Your task to perform on an android device: Add usb-c to the cart on ebay, then select checkout. Image 0: 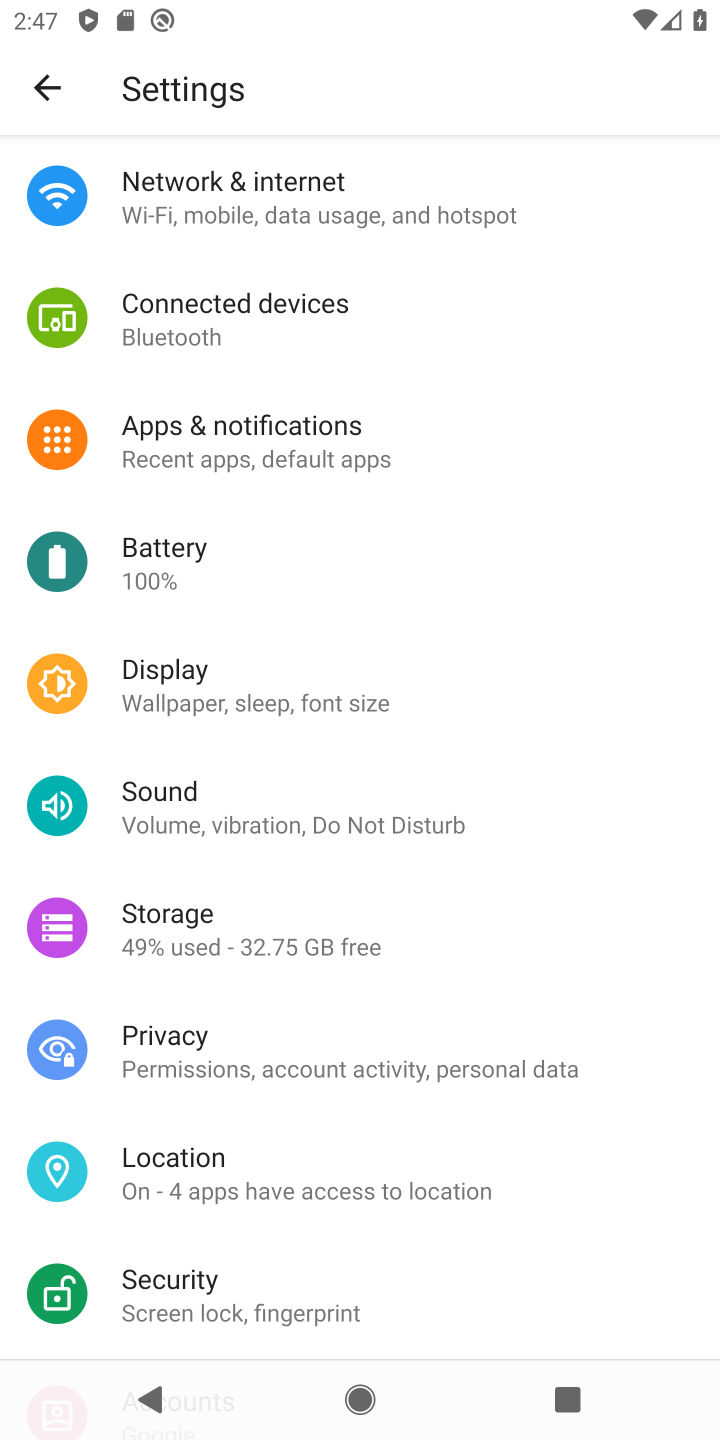
Step 0: press home button
Your task to perform on an android device: Add usb-c to the cart on ebay, then select checkout. Image 1: 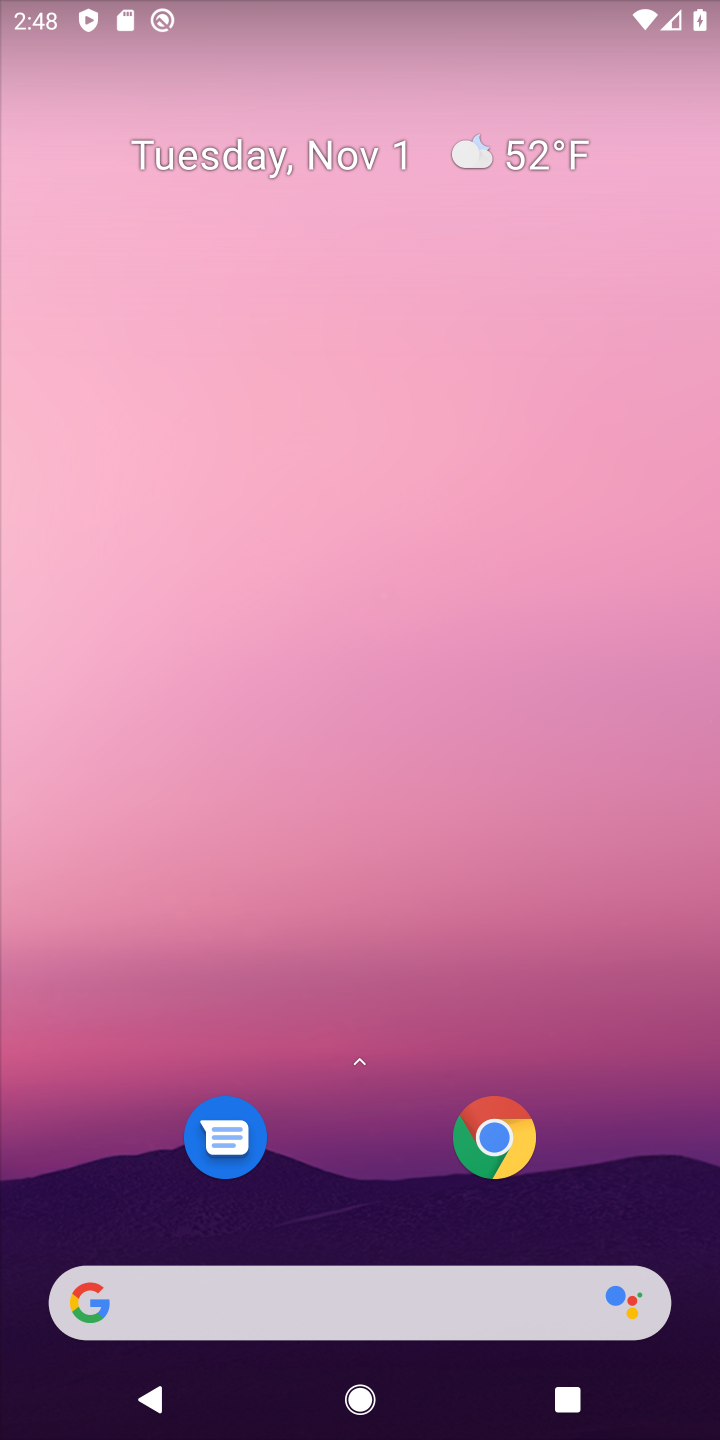
Step 1: click (448, 1340)
Your task to perform on an android device: Add usb-c to the cart on ebay, then select checkout. Image 2: 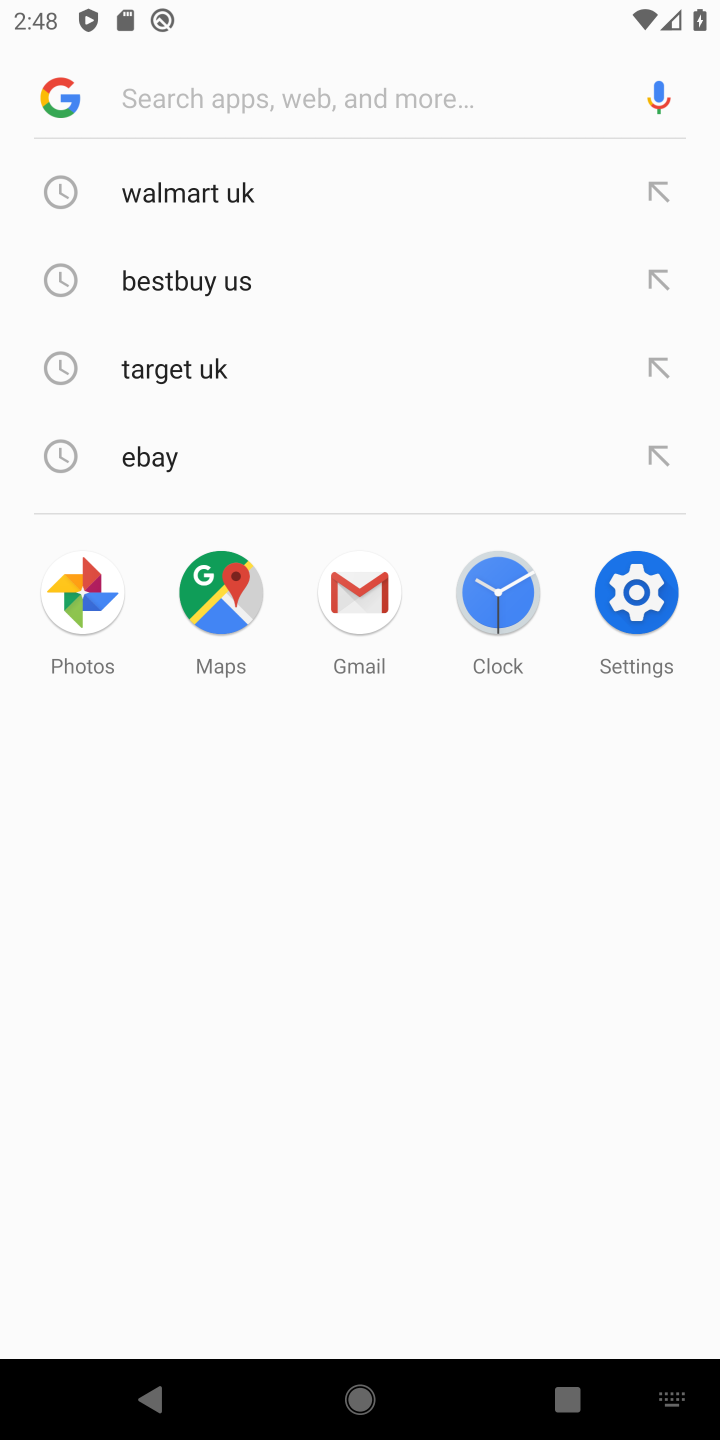
Step 2: click (249, 437)
Your task to perform on an android device: Add usb-c to the cart on ebay, then select checkout. Image 3: 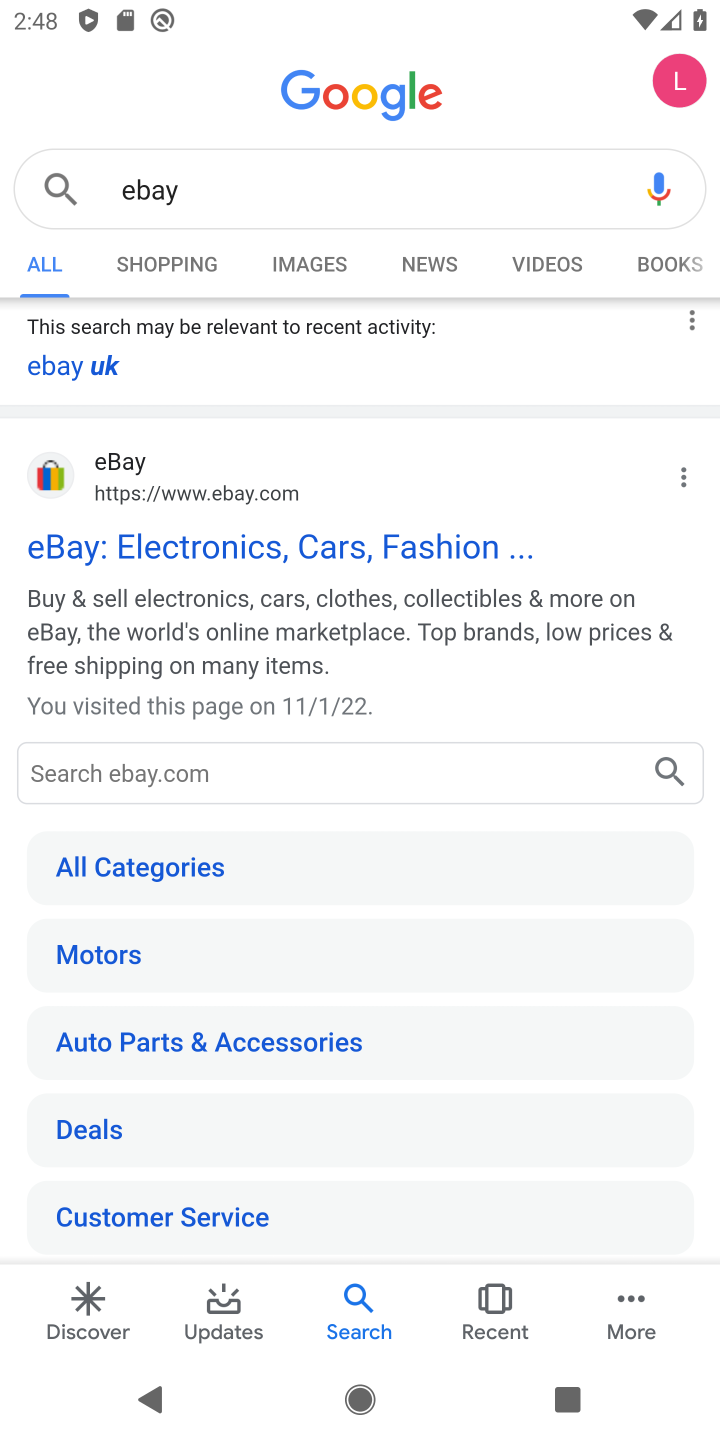
Step 3: click (375, 570)
Your task to perform on an android device: Add usb-c to the cart on ebay, then select checkout. Image 4: 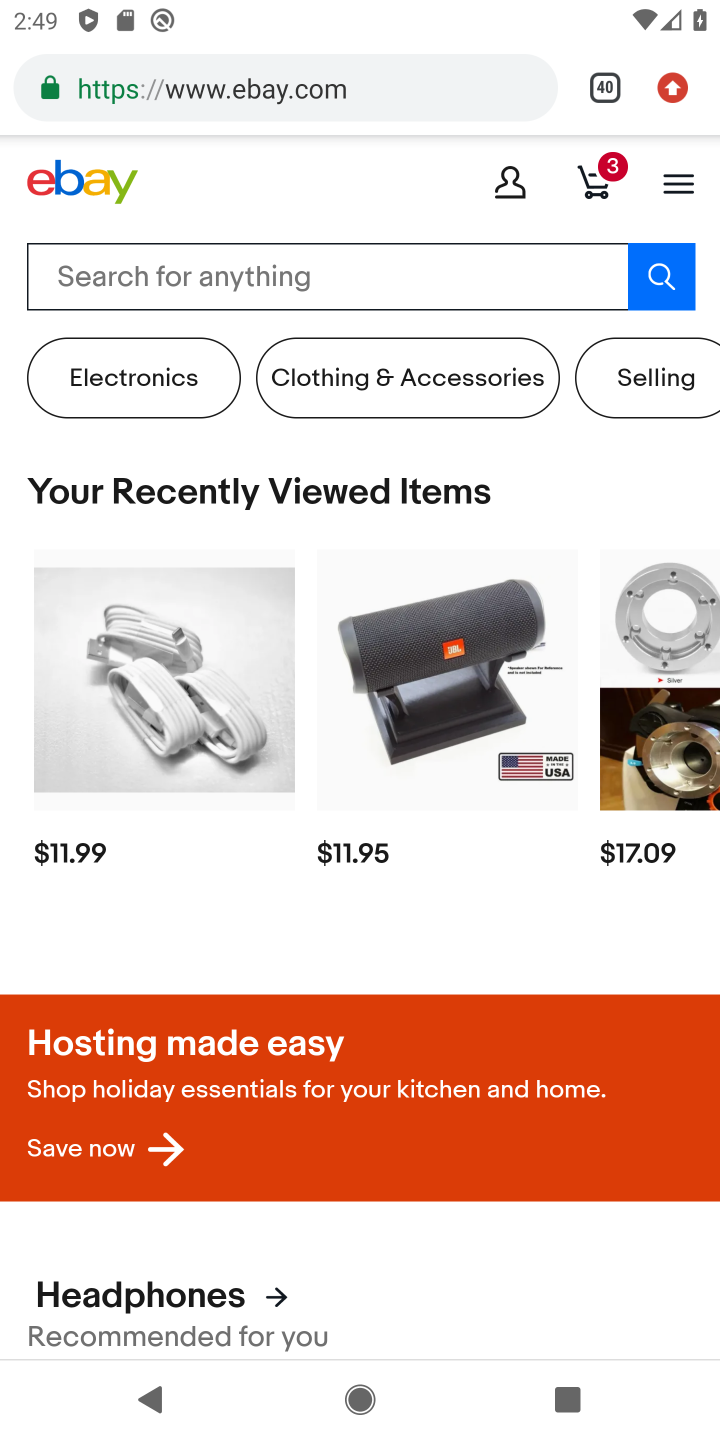
Step 4: drag from (330, 936) to (244, 395)
Your task to perform on an android device: Add usb-c to the cart on ebay, then select checkout. Image 5: 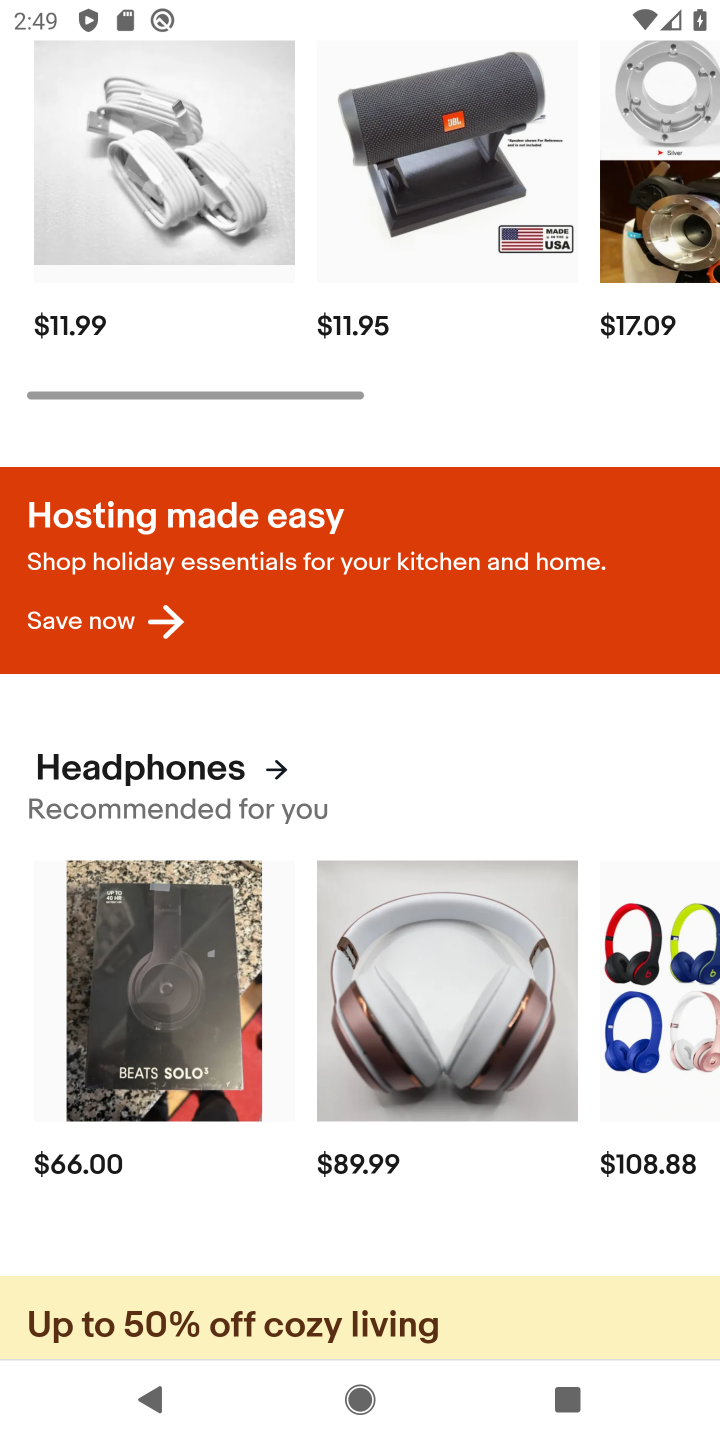
Step 5: drag from (279, 1228) to (140, 521)
Your task to perform on an android device: Add usb-c to the cart on ebay, then select checkout. Image 6: 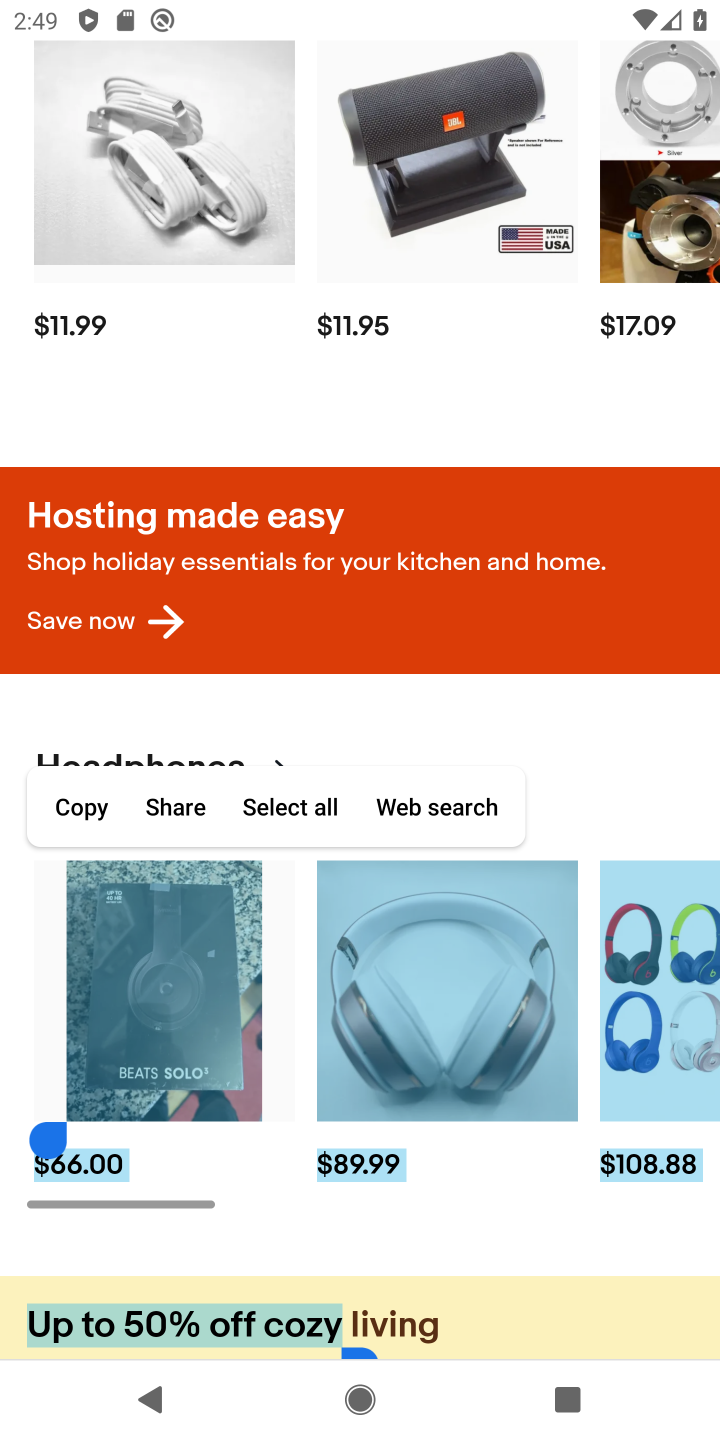
Step 6: click (310, 1210)
Your task to perform on an android device: Add usb-c to the cart on ebay, then select checkout. Image 7: 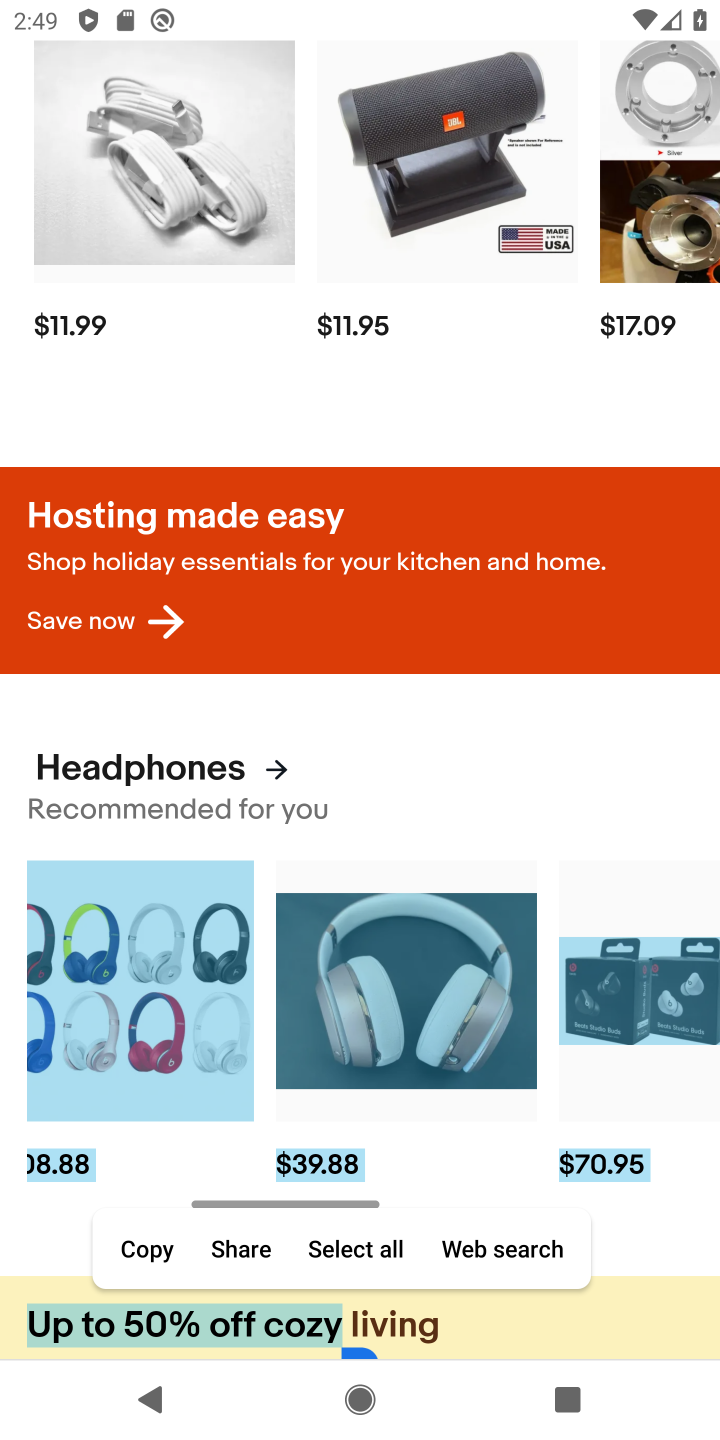
Step 7: click (180, 259)
Your task to perform on an android device: Add usb-c to the cart on ebay, then select checkout. Image 8: 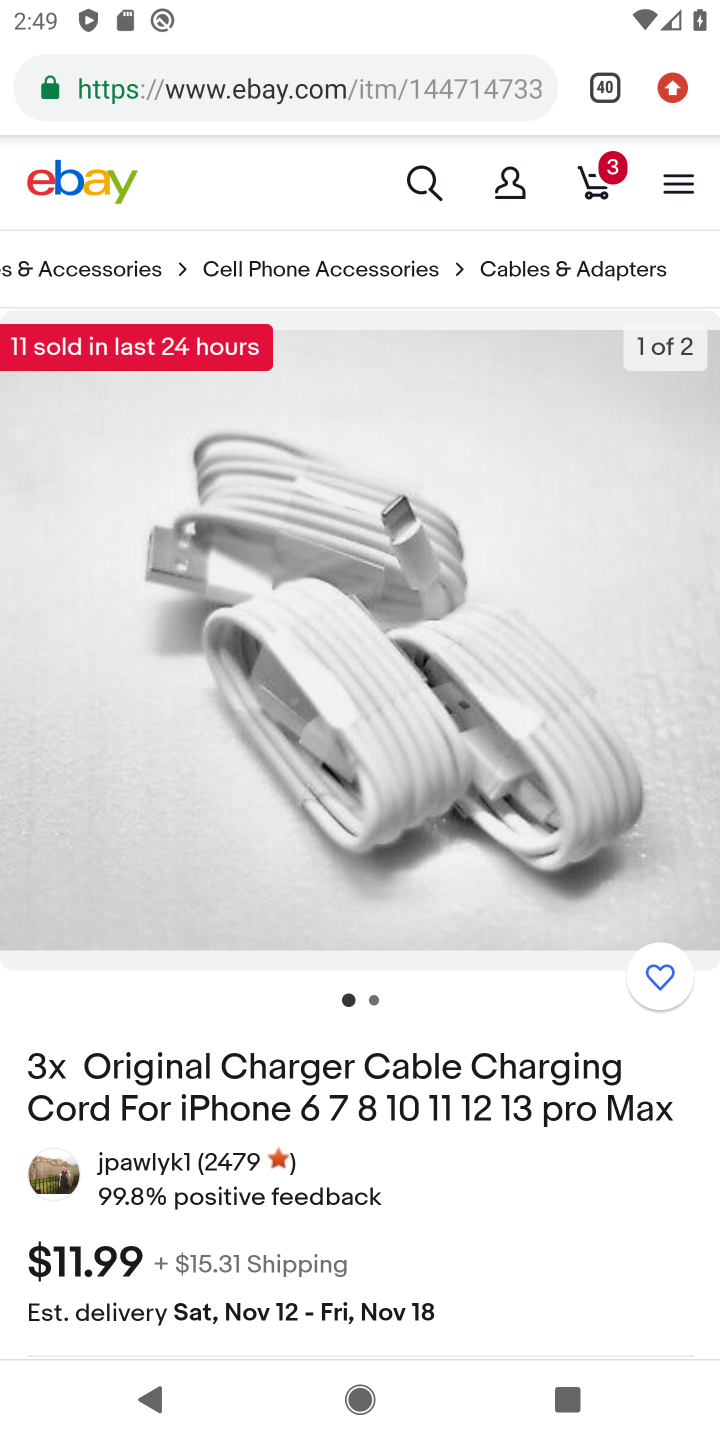
Step 8: drag from (488, 1156) to (410, 830)
Your task to perform on an android device: Add usb-c to the cart on ebay, then select checkout. Image 9: 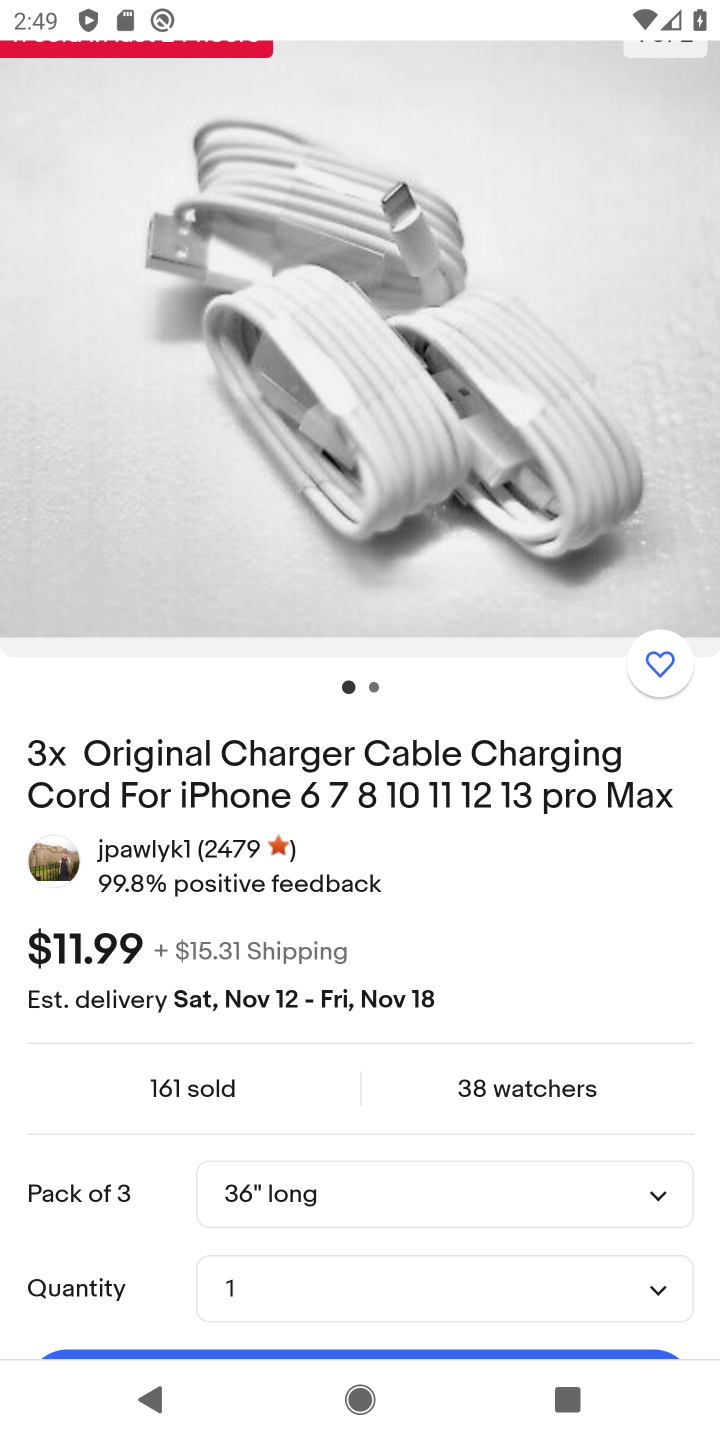
Step 9: drag from (450, 1274) to (439, 1046)
Your task to perform on an android device: Add usb-c to the cart on ebay, then select checkout. Image 10: 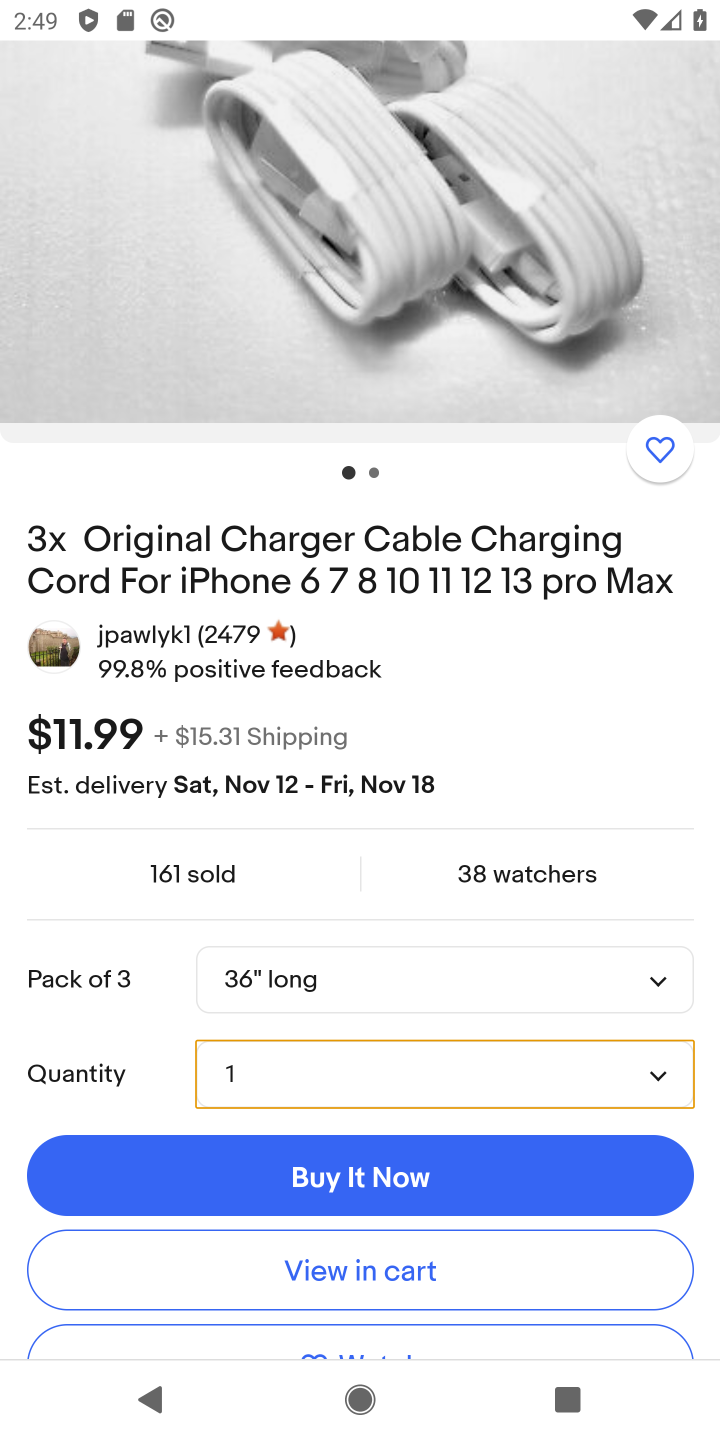
Step 10: click (487, 1297)
Your task to perform on an android device: Add usb-c to the cart on ebay, then select checkout. Image 11: 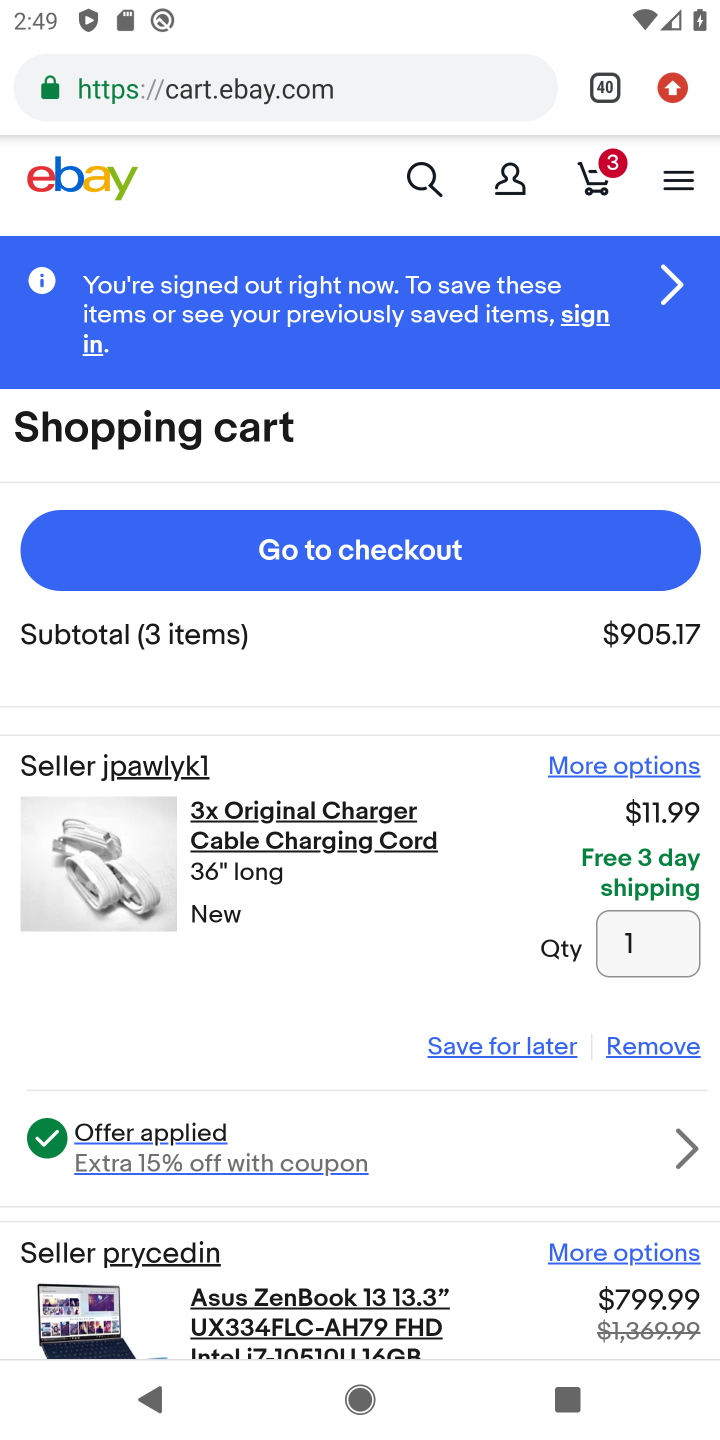
Step 11: task complete